Your task to perform on an android device: Turn off the flashlight Image 0: 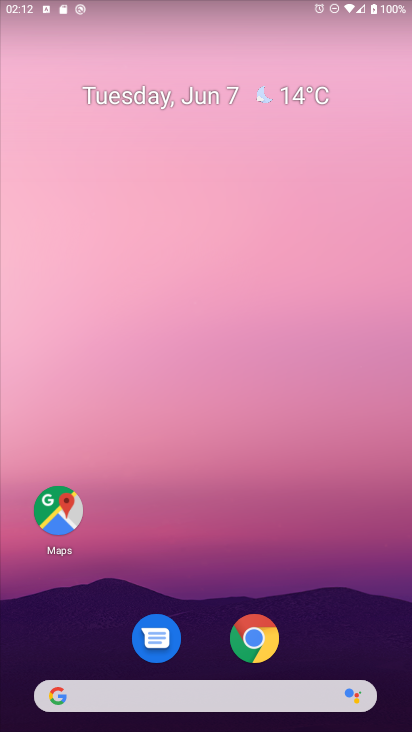
Step 0: drag from (268, 673) to (219, 184)
Your task to perform on an android device: Turn off the flashlight Image 1: 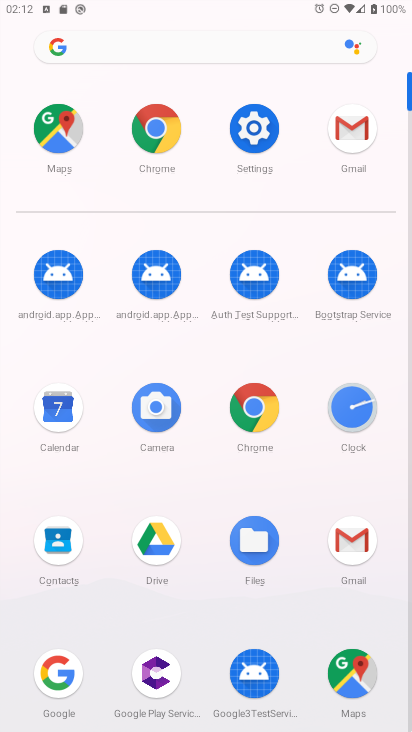
Step 1: click (248, 140)
Your task to perform on an android device: Turn off the flashlight Image 2: 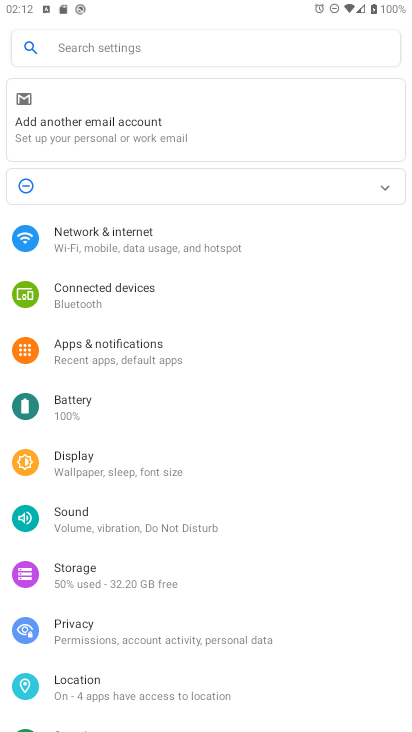
Step 2: click (108, 40)
Your task to perform on an android device: Turn off the flashlight Image 3: 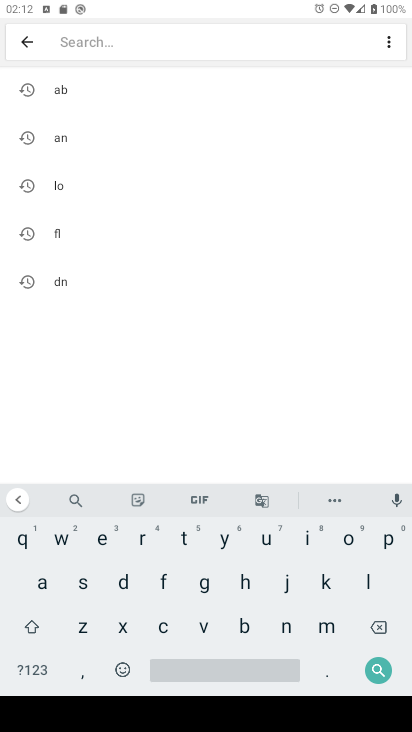
Step 3: click (76, 230)
Your task to perform on an android device: Turn off the flashlight Image 4: 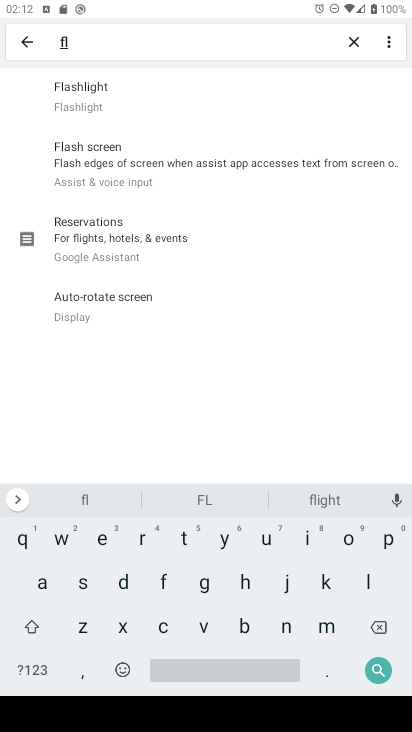
Step 4: click (135, 102)
Your task to perform on an android device: Turn off the flashlight Image 5: 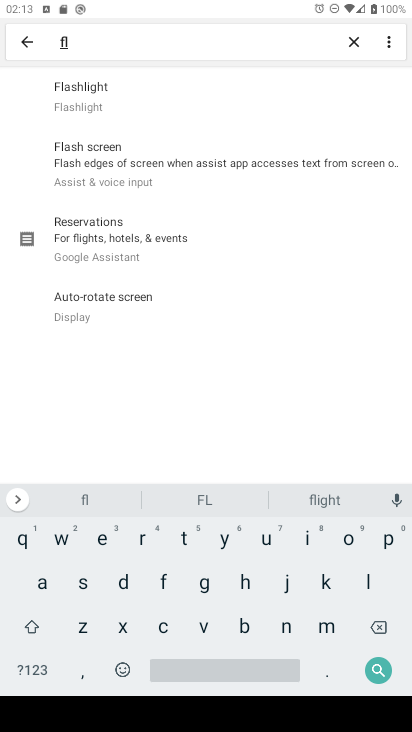
Step 5: task complete